Your task to perform on an android device: Open internet settings Image 0: 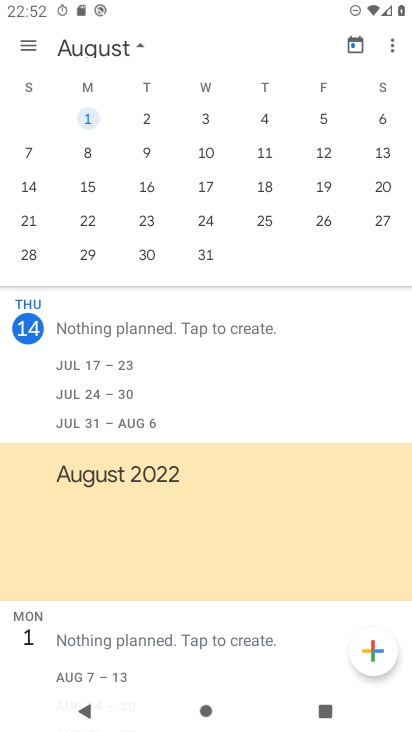
Step 0: press home button
Your task to perform on an android device: Open internet settings Image 1: 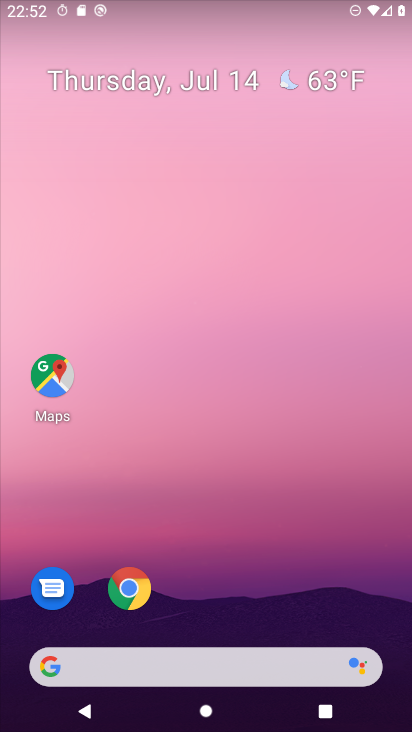
Step 1: drag from (349, 588) to (348, 87)
Your task to perform on an android device: Open internet settings Image 2: 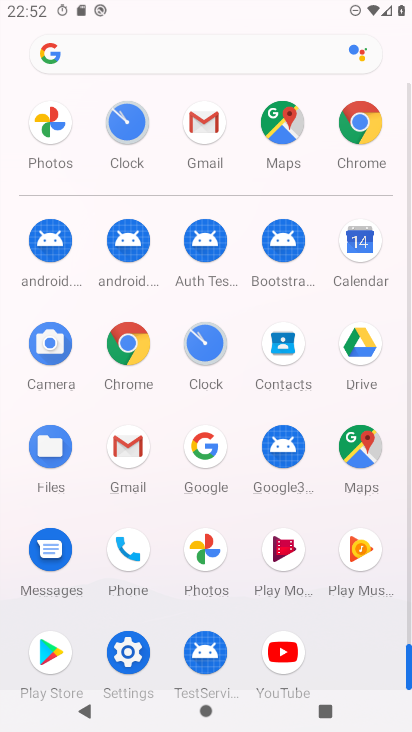
Step 2: click (135, 657)
Your task to perform on an android device: Open internet settings Image 3: 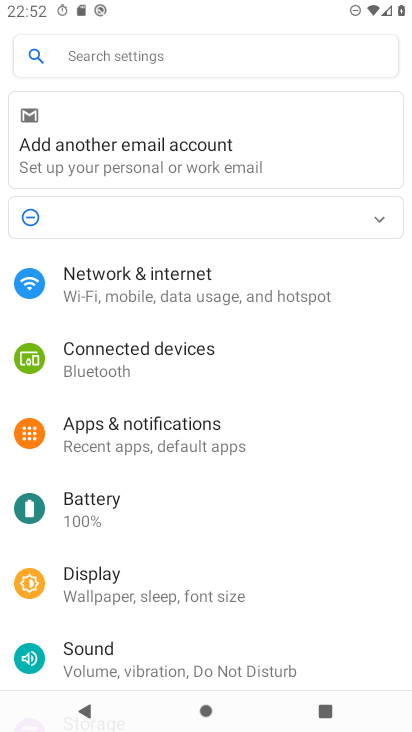
Step 3: drag from (354, 481) to (374, 313)
Your task to perform on an android device: Open internet settings Image 4: 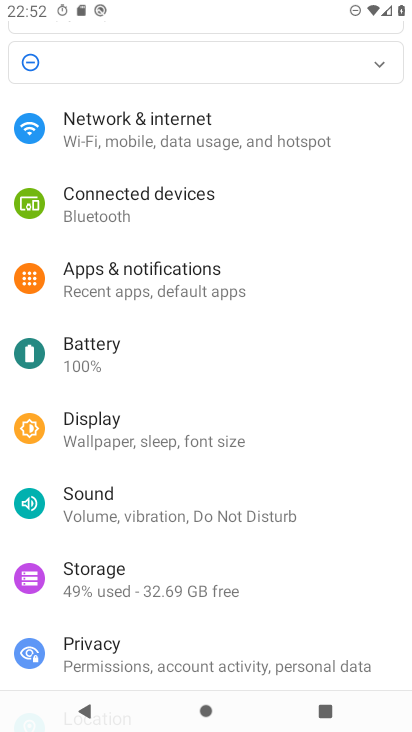
Step 4: drag from (348, 495) to (375, 304)
Your task to perform on an android device: Open internet settings Image 5: 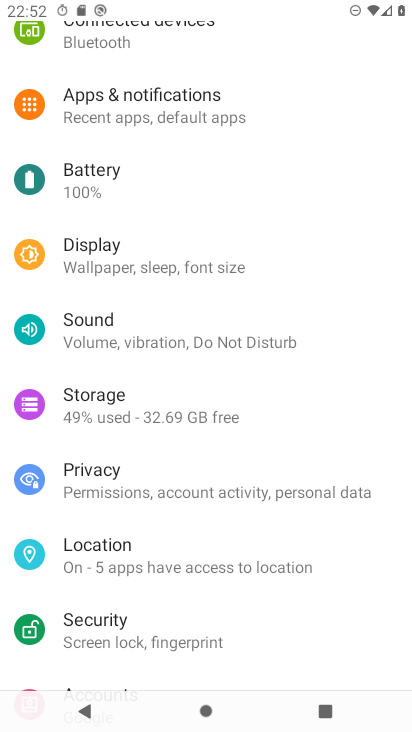
Step 5: drag from (341, 561) to (350, 311)
Your task to perform on an android device: Open internet settings Image 6: 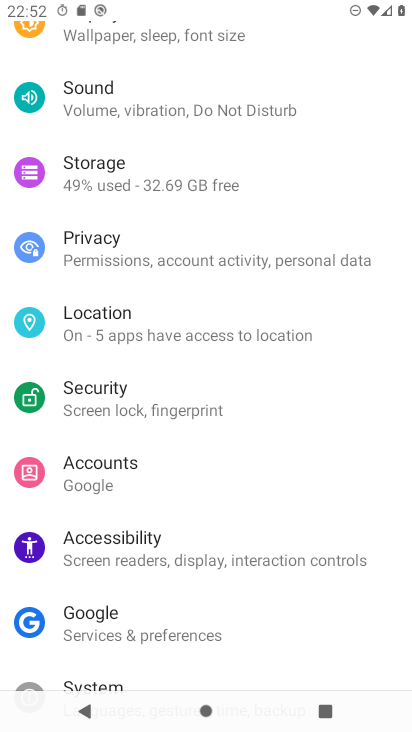
Step 6: drag from (365, 224) to (374, 367)
Your task to perform on an android device: Open internet settings Image 7: 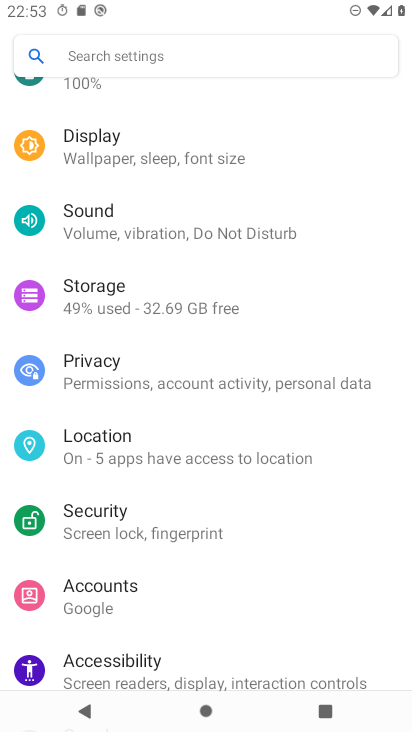
Step 7: drag from (383, 188) to (375, 291)
Your task to perform on an android device: Open internet settings Image 8: 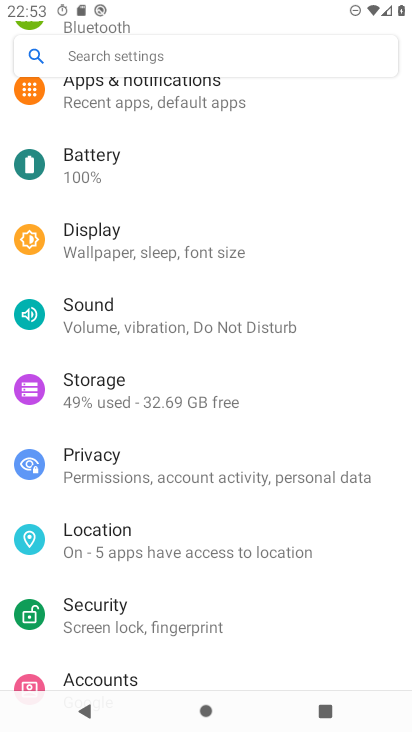
Step 8: drag from (367, 175) to (356, 274)
Your task to perform on an android device: Open internet settings Image 9: 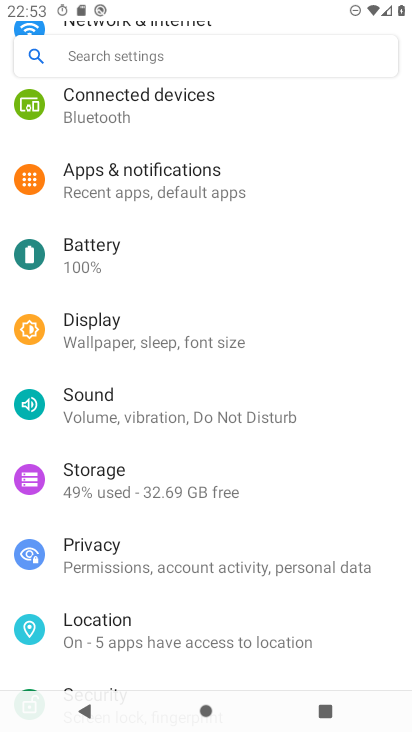
Step 9: drag from (353, 138) to (341, 284)
Your task to perform on an android device: Open internet settings Image 10: 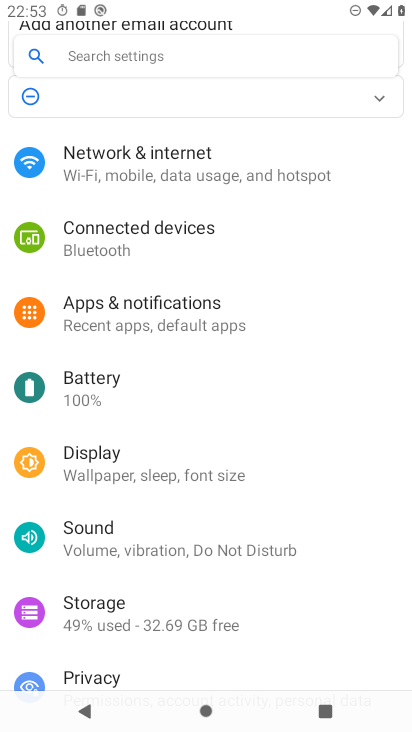
Step 10: click (286, 177)
Your task to perform on an android device: Open internet settings Image 11: 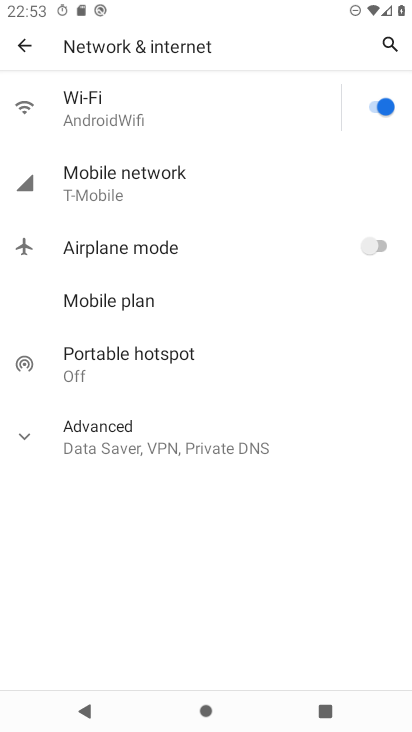
Step 11: task complete